Your task to perform on an android device: open app "Google Chat" Image 0: 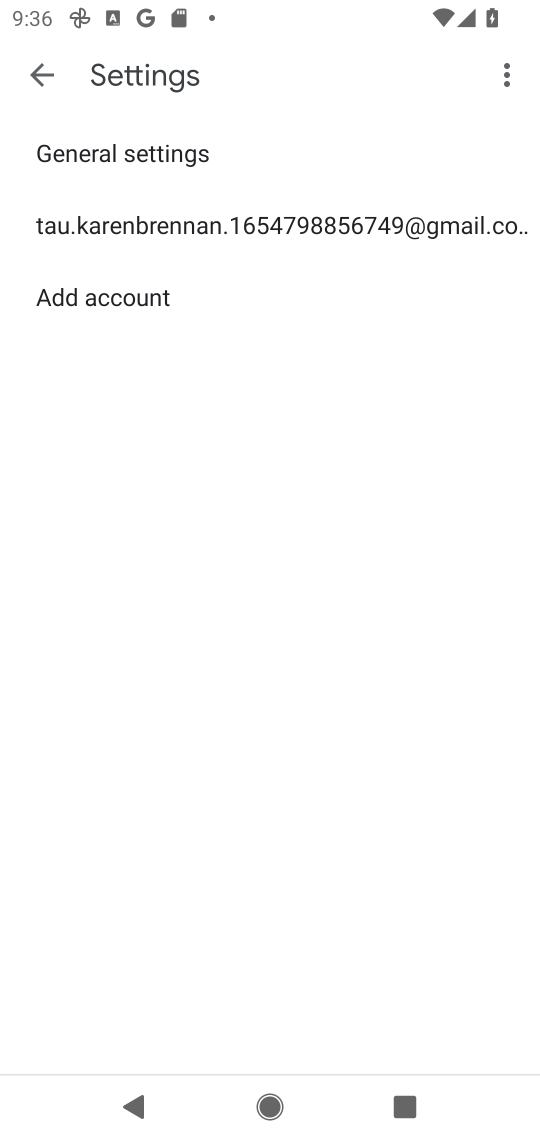
Step 0: press home button
Your task to perform on an android device: open app "Google Chat" Image 1: 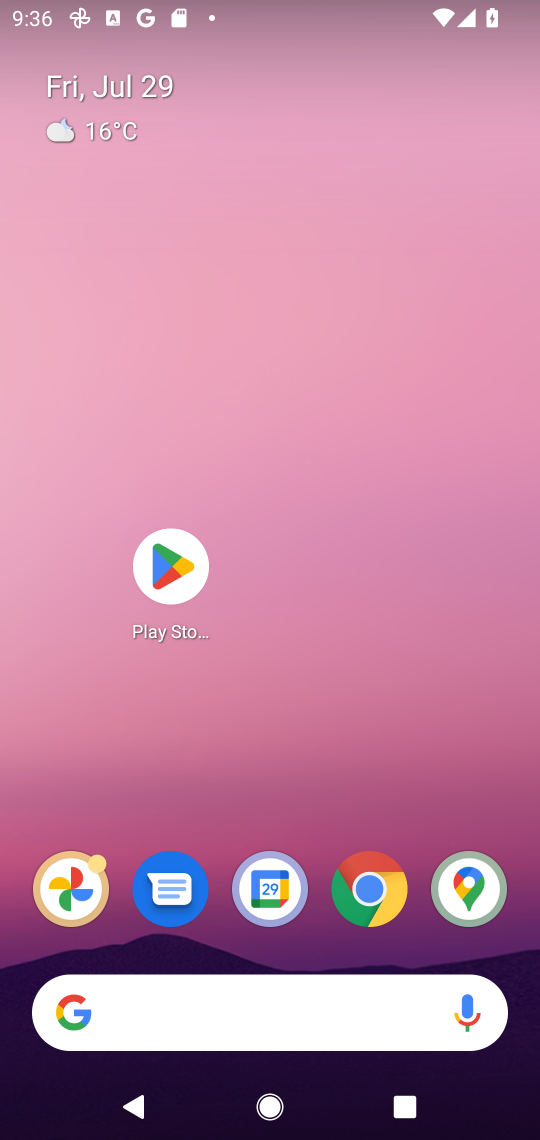
Step 1: click (189, 549)
Your task to perform on an android device: open app "Google Chat" Image 2: 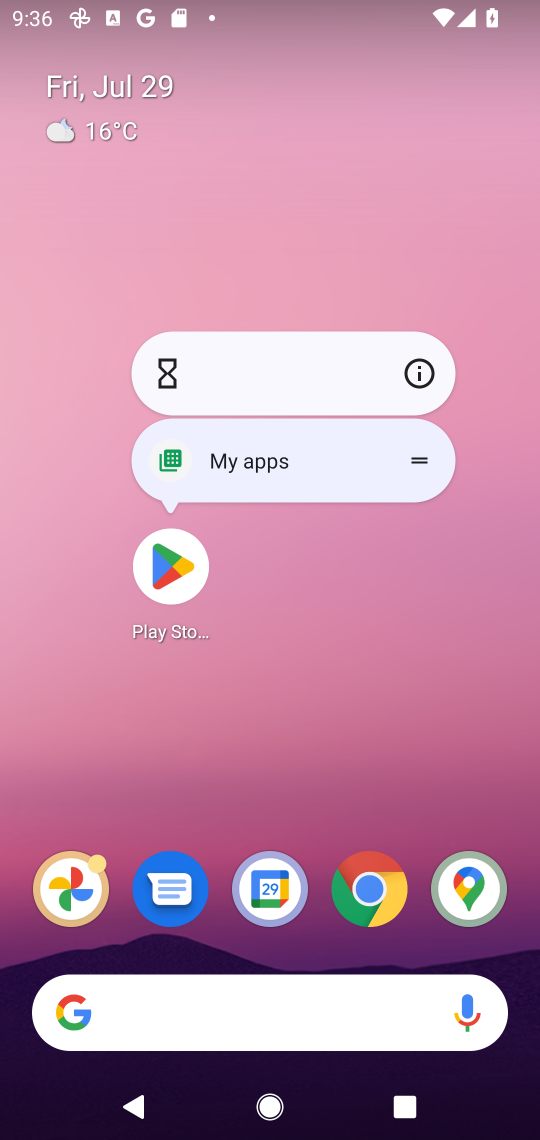
Step 2: click (172, 561)
Your task to perform on an android device: open app "Google Chat" Image 3: 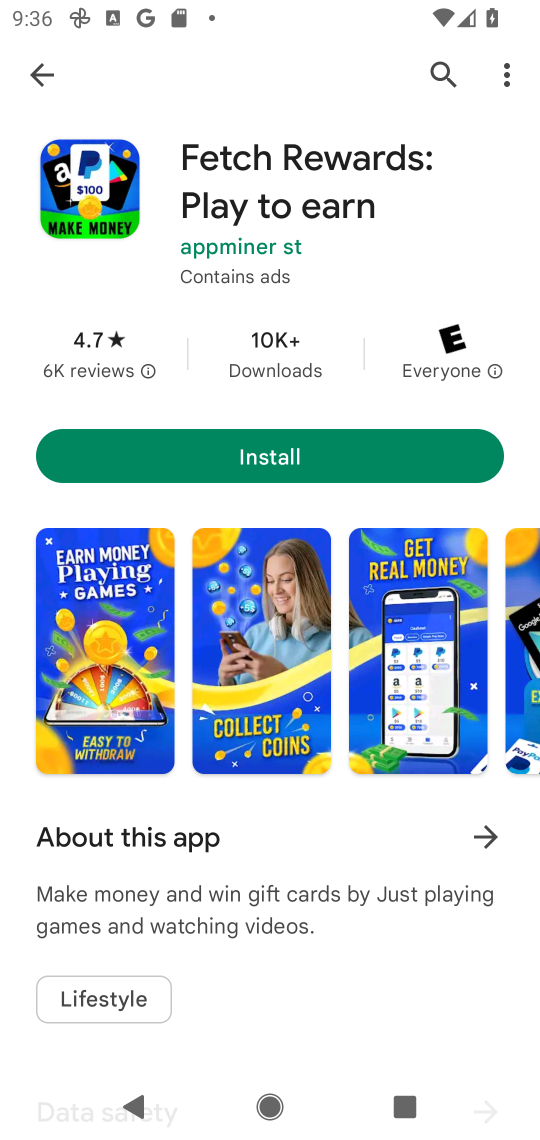
Step 3: click (452, 58)
Your task to perform on an android device: open app "Google Chat" Image 4: 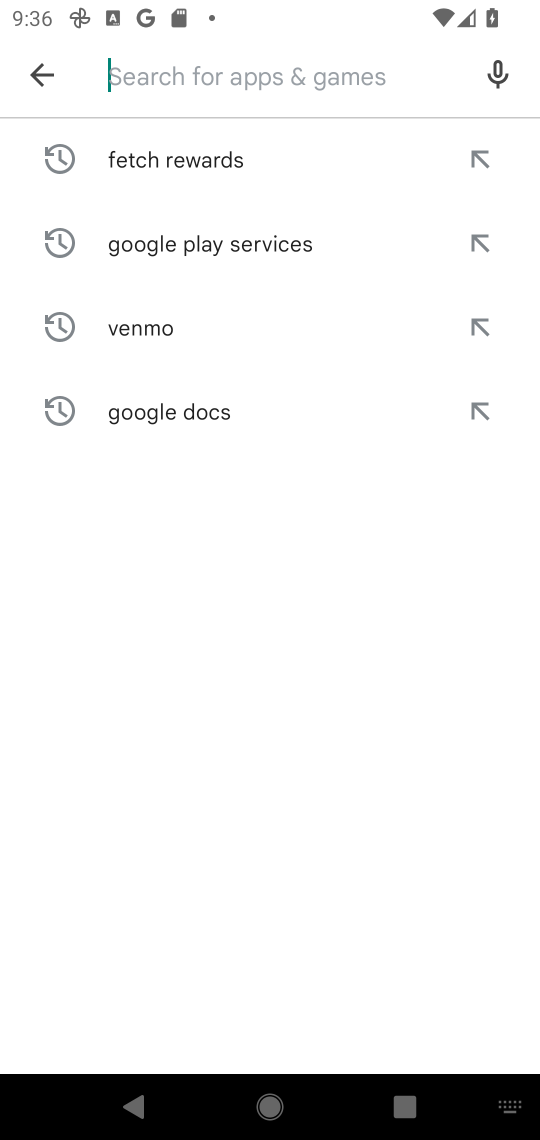
Step 4: type "Google Chat"
Your task to perform on an android device: open app "Google Chat" Image 5: 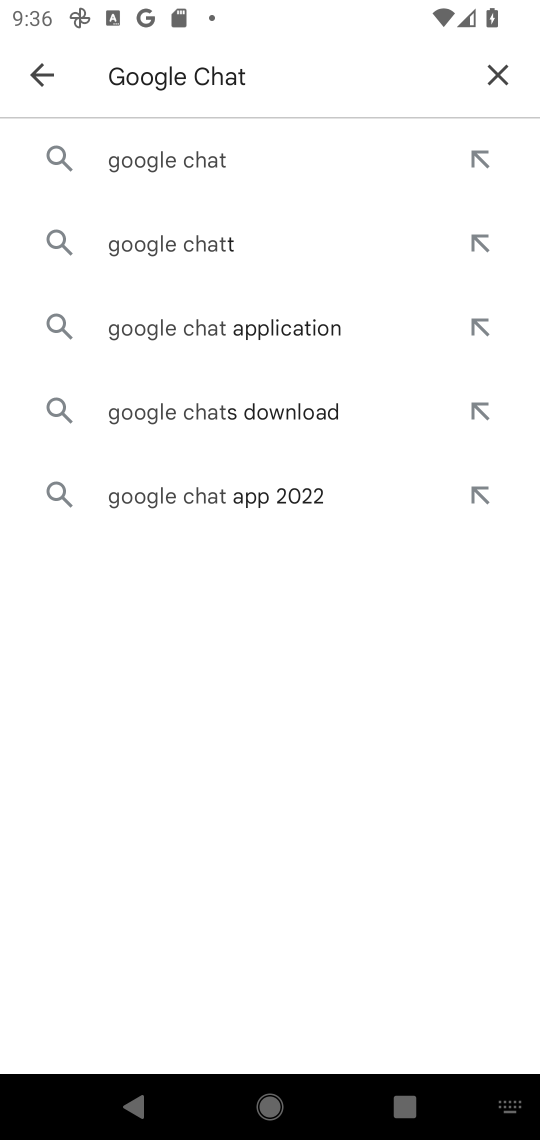
Step 5: click (186, 161)
Your task to perform on an android device: open app "Google Chat" Image 6: 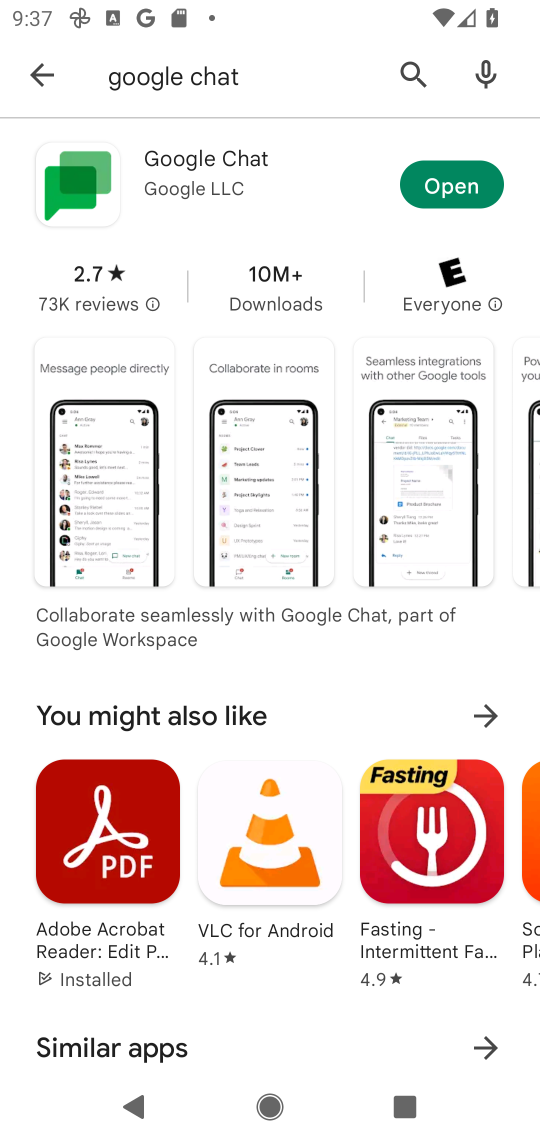
Step 6: click (430, 182)
Your task to perform on an android device: open app "Google Chat" Image 7: 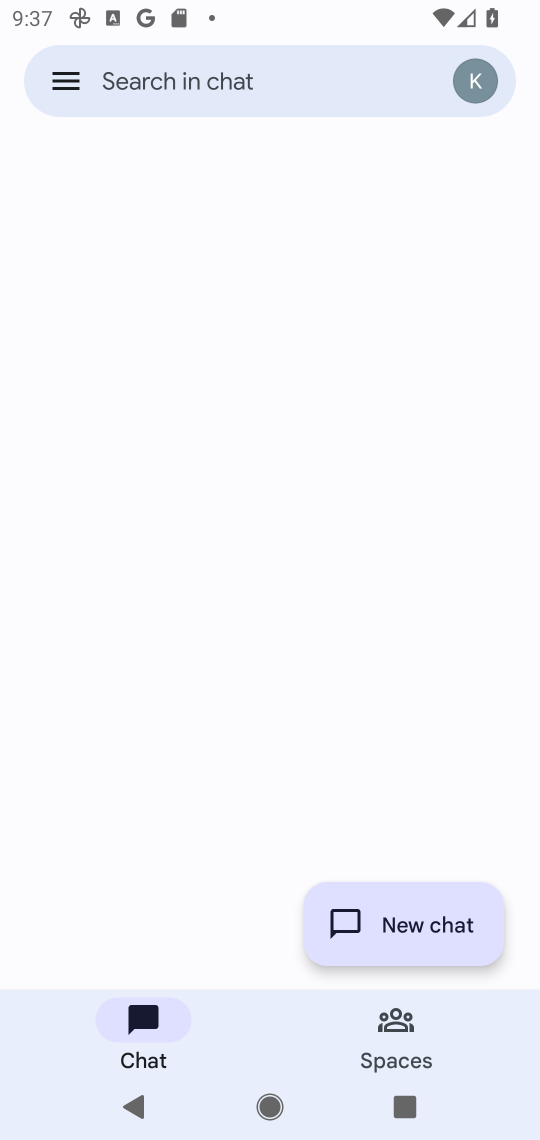
Step 7: task complete